Your task to perform on an android device: Turn on the flashlight Image 0: 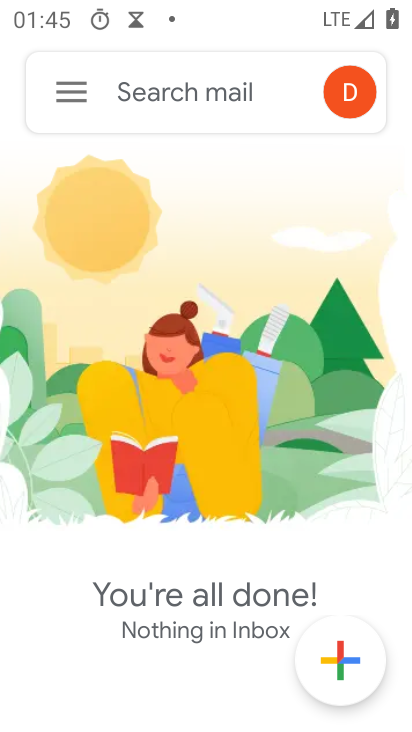
Step 0: press home button
Your task to perform on an android device: Turn on the flashlight Image 1: 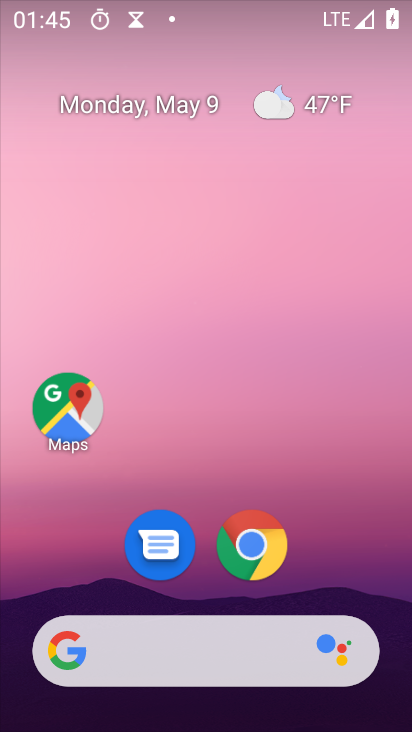
Step 1: task complete